Your task to perform on an android device: read, delete, or share a saved page in the chrome app Image 0: 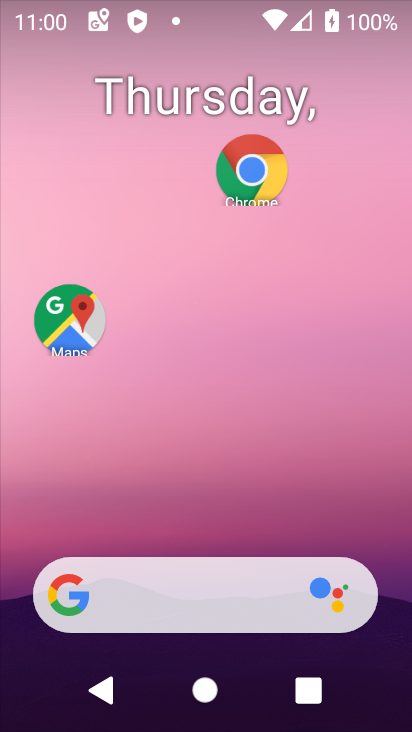
Step 0: drag from (155, 518) to (201, 221)
Your task to perform on an android device: read, delete, or share a saved page in the chrome app Image 1: 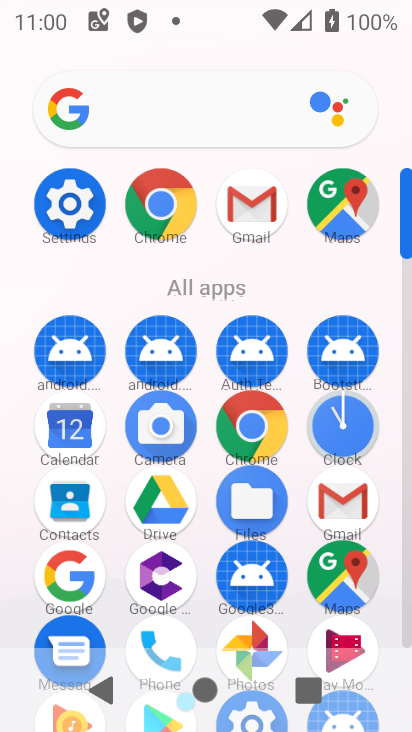
Step 1: click (162, 206)
Your task to perform on an android device: read, delete, or share a saved page in the chrome app Image 2: 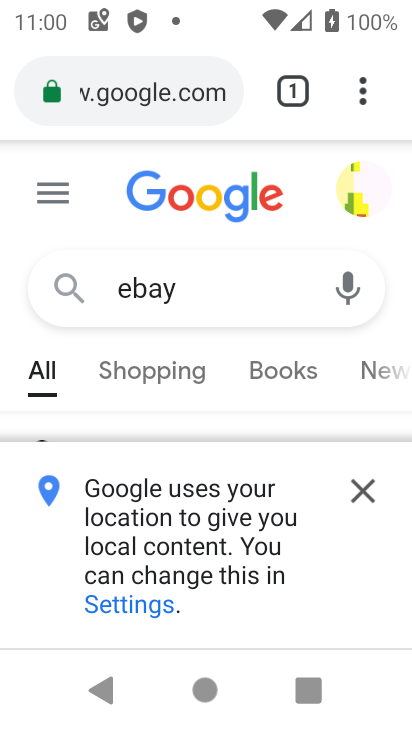
Step 2: click (371, 89)
Your task to perform on an android device: read, delete, or share a saved page in the chrome app Image 3: 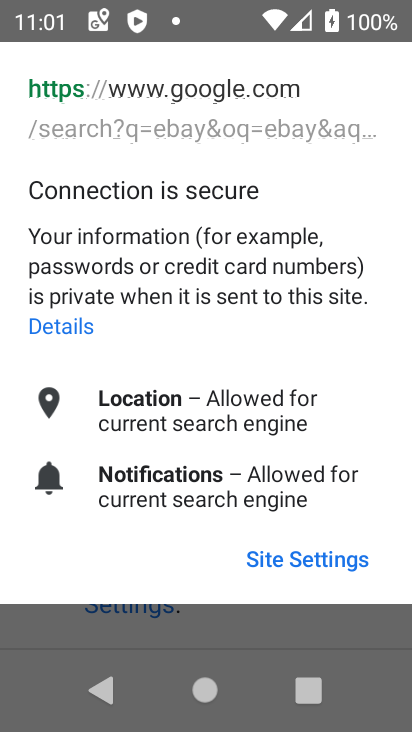
Step 3: press back button
Your task to perform on an android device: read, delete, or share a saved page in the chrome app Image 4: 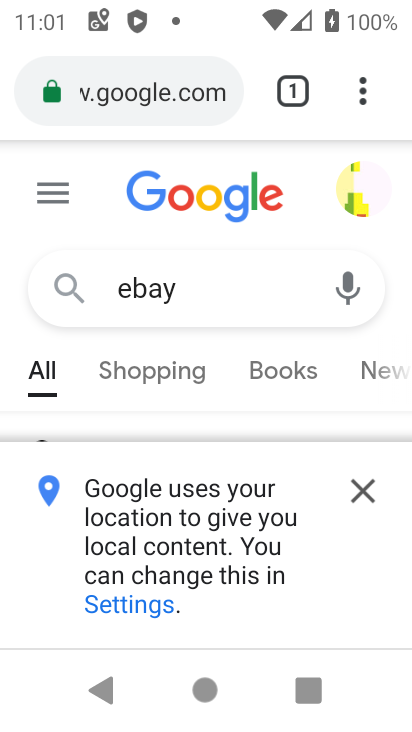
Step 4: click (362, 96)
Your task to perform on an android device: read, delete, or share a saved page in the chrome app Image 5: 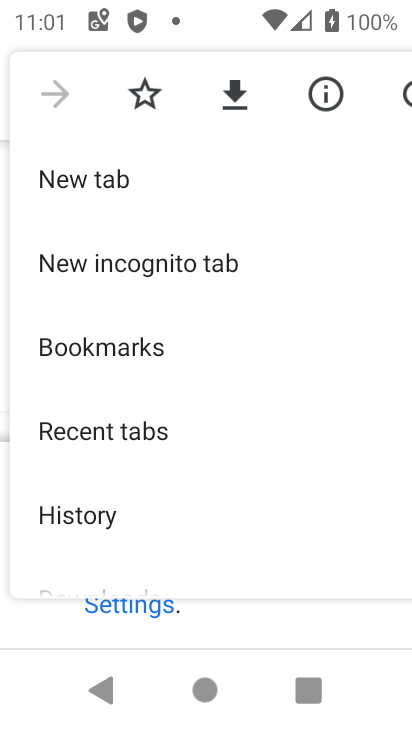
Step 5: drag from (106, 509) to (141, 261)
Your task to perform on an android device: read, delete, or share a saved page in the chrome app Image 6: 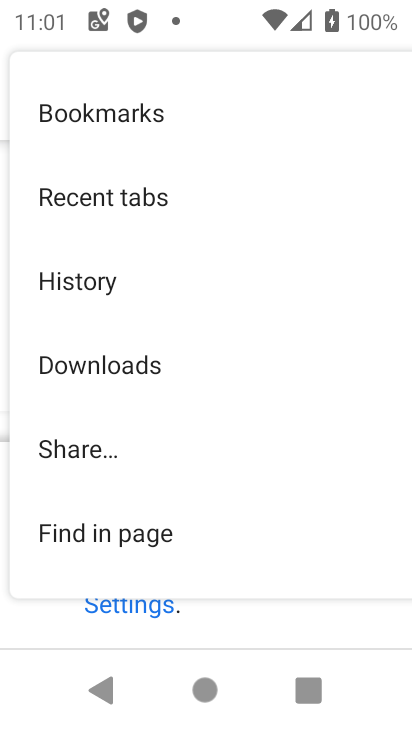
Step 6: click (146, 370)
Your task to perform on an android device: read, delete, or share a saved page in the chrome app Image 7: 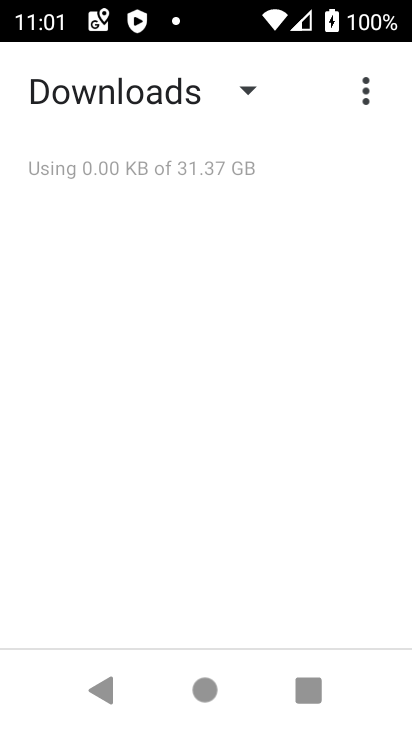
Step 7: click (245, 95)
Your task to perform on an android device: read, delete, or share a saved page in the chrome app Image 8: 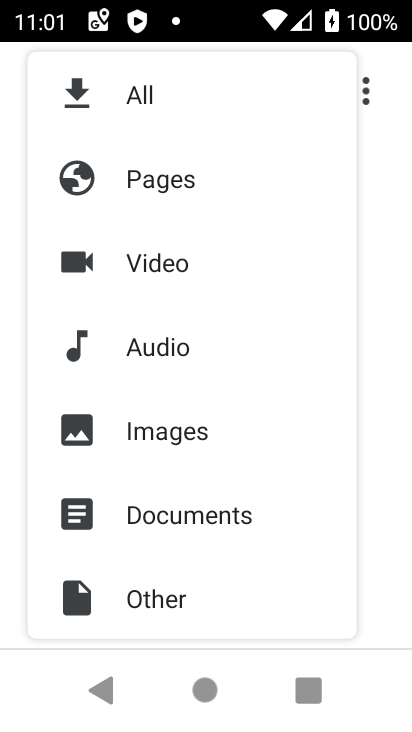
Step 8: click (201, 182)
Your task to perform on an android device: read, delete, or share a saved page in the chrome app Image 9: 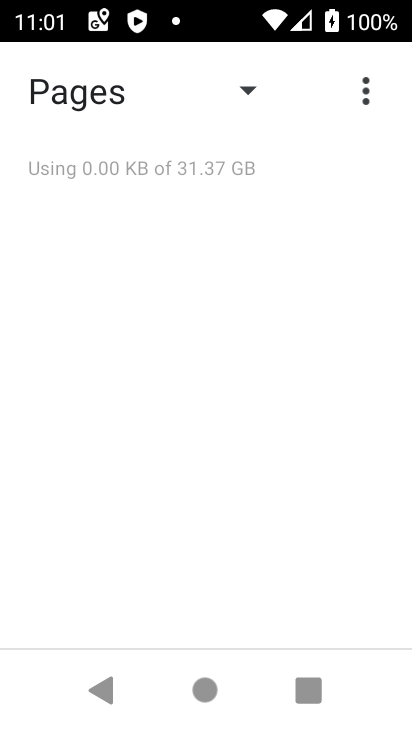
Step 9: task complete